Your task to perform on an android device: Search for Mexican restaurants on Maps Image 0: 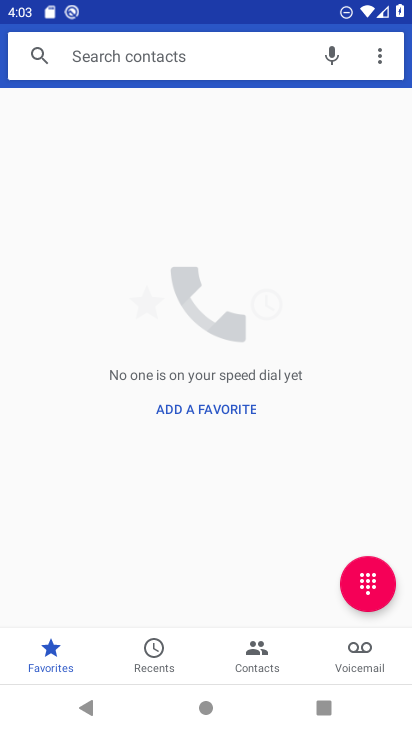
Step 0: press home button
Your task to perform on an android device: Search for Mexican restaurants on Maps Image 1: 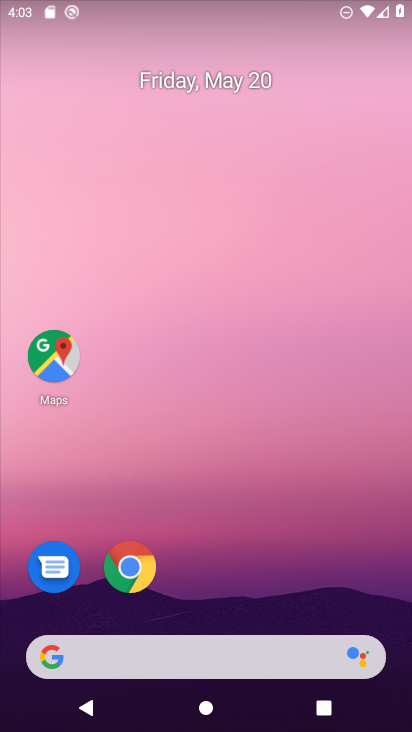
Step 1: drag from (221, 704) to (223, 159)
Your task to perform on an android device: Search for Mexican restaurants on Maps Image 2: 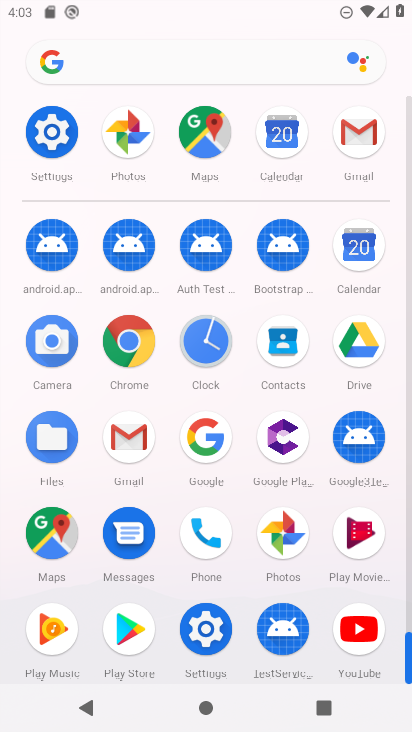
Step 2: click (55, 526)
Your task to perform on an android device: Search for Mexican restaurants on Maps Image 3: 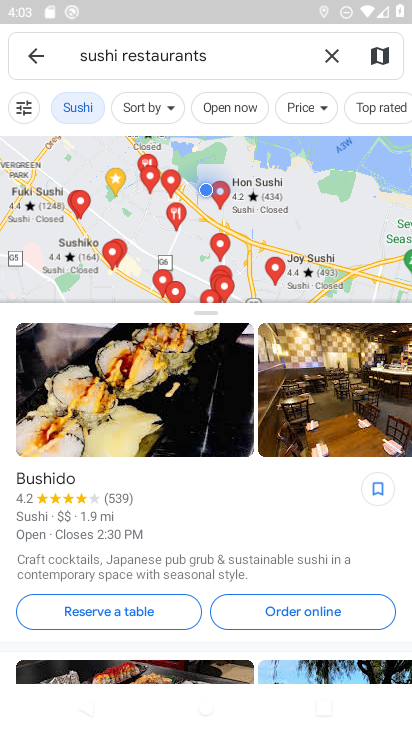
Step 3: click (331, 48)
Your task to perform on an android device: Search for Mexican restaurants on Maps Image 4: 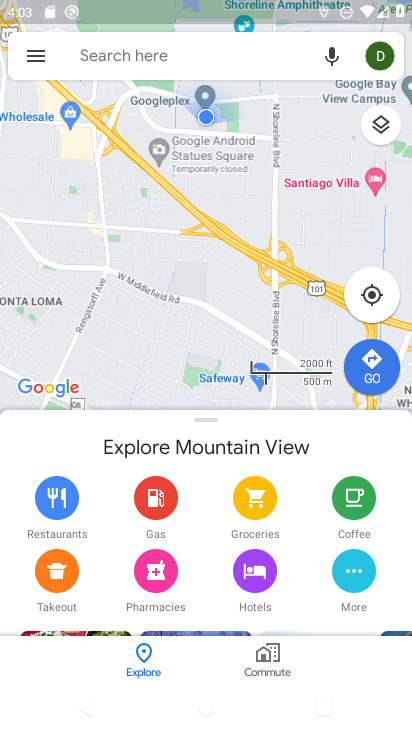
Step 4: click (193, 58)
Your task to perform on an android device: Search for Mexican restaurants on Maps Image 5: 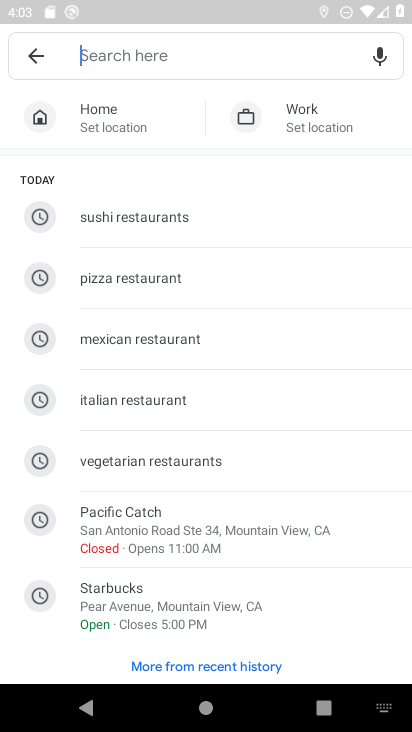
Step 5: type "Mexican restaurnats"
Your task to perform on an android device: Search for Mexican restaurants on Maps Image 6: 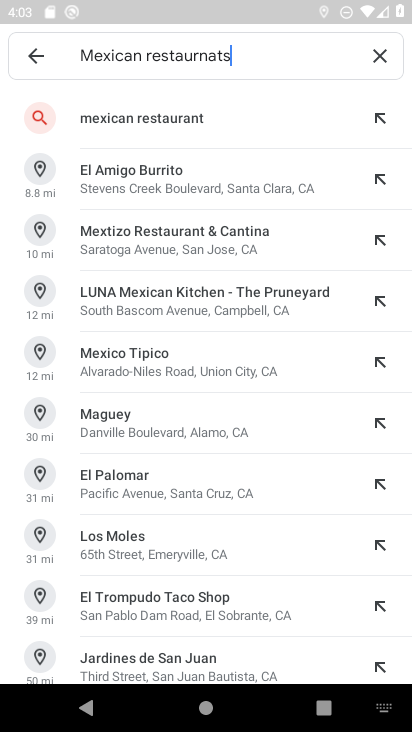
Step 6: click (194, 115)
Your task to perform on an android device: Search for Mexican restaurants on Maps Image 7: 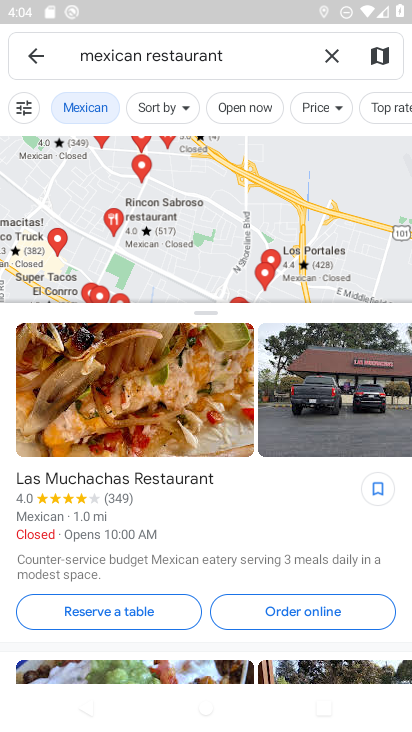
Step 7: task complete